Your task to perform on an android device: open app "Indeed Job Search" Image 0: 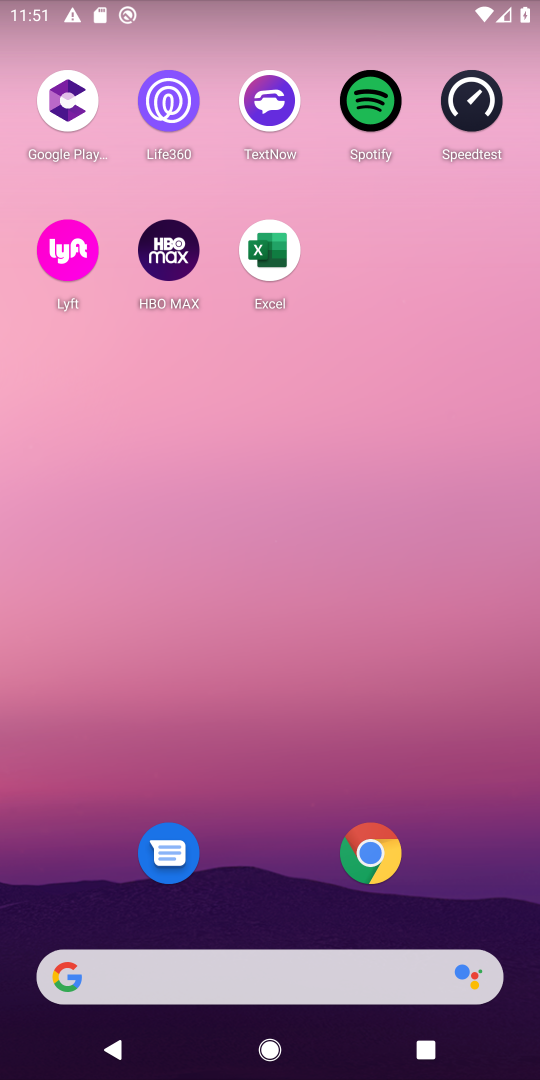
Step 0: drag from (290, 735) to (292, 493)
Your task to perform on an android device: open app "Indeed Job Search" Image 1: 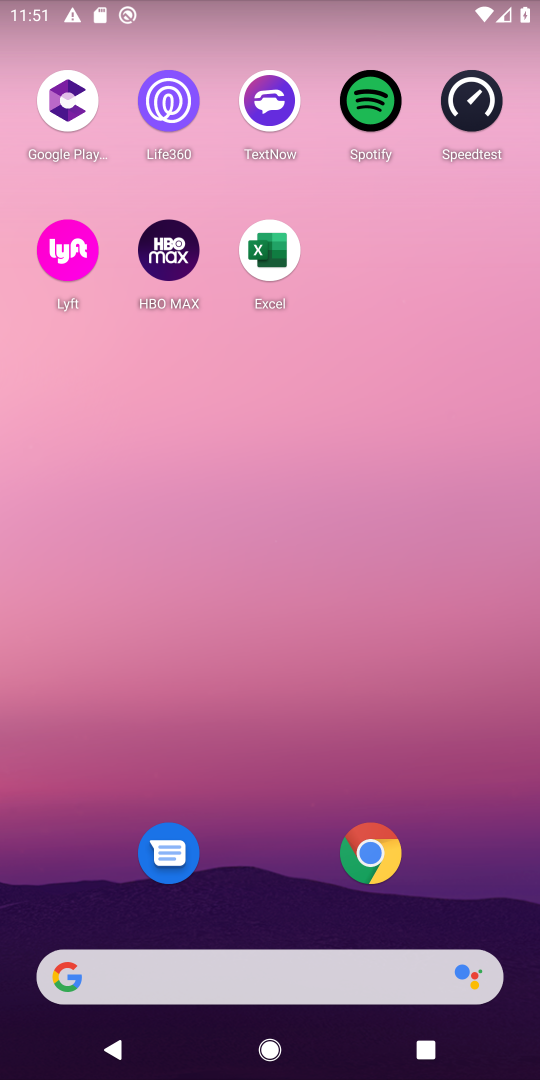
Step 1: drag from (311, 773) to (259, 320)
Your task to perform on an android device: open app "Indeed Job Search" Image 2: 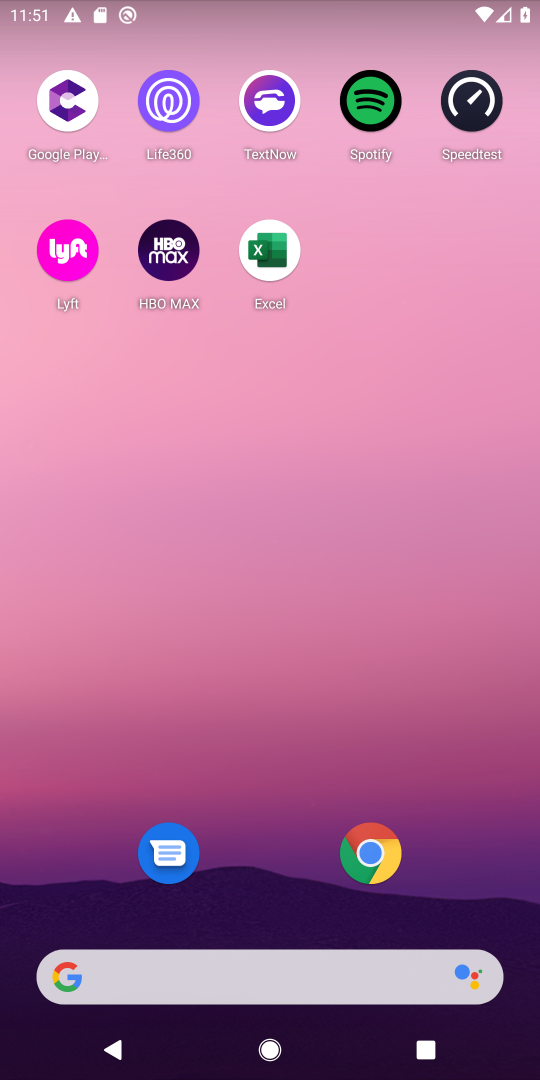
Step 2: drag from (211, 853) to (368, 23)
Your task to perform on an android device: open app "Indeed Job Search" Image 3: 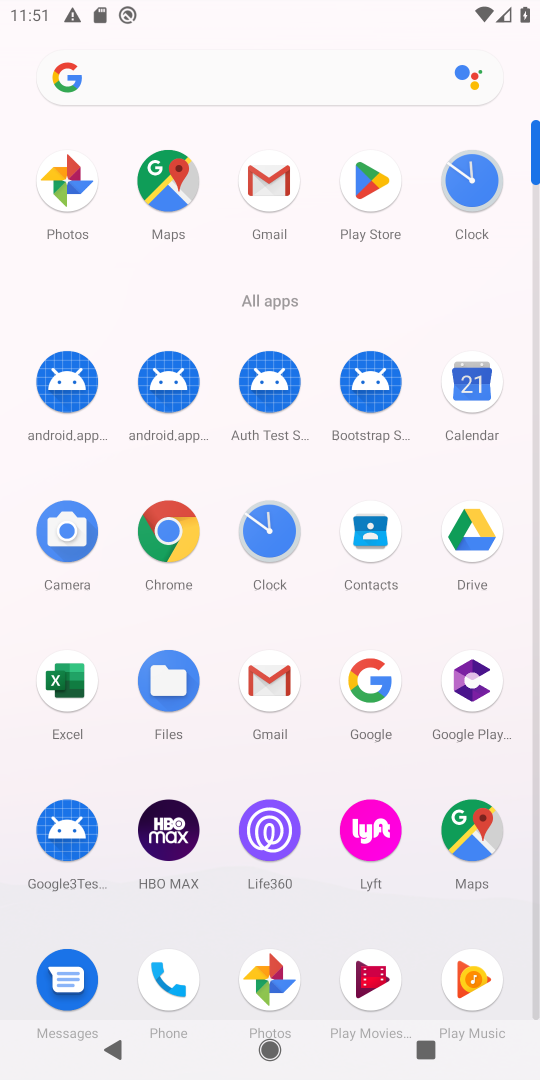
Step 3: click (369, 174)
Your task to perform on an android device: open app "Indeed Job Search" Image 4: 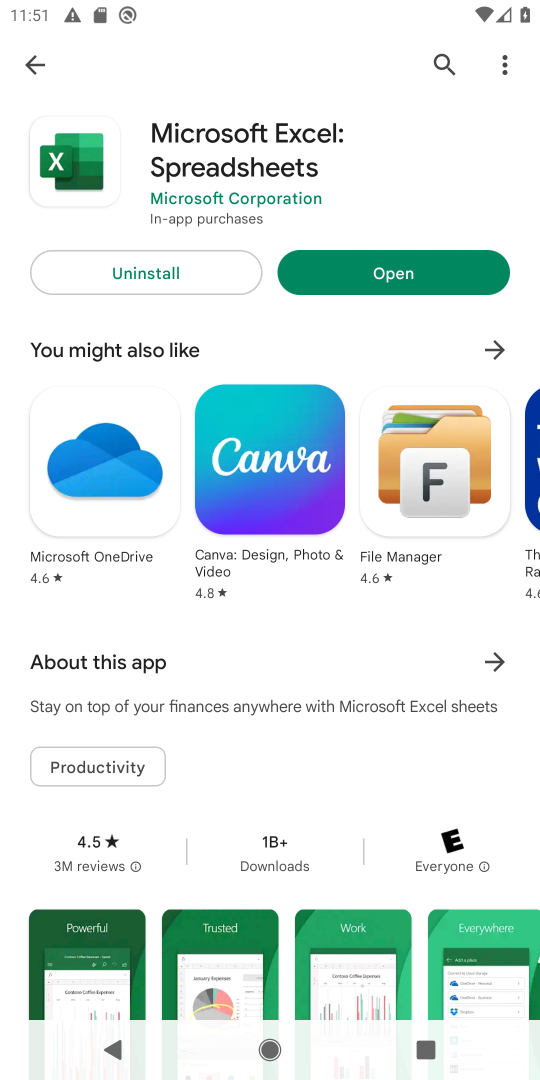
Step 4: click (49, 58)
Your task to perform on an android device: open app "Indeed Job Search" Image 5: 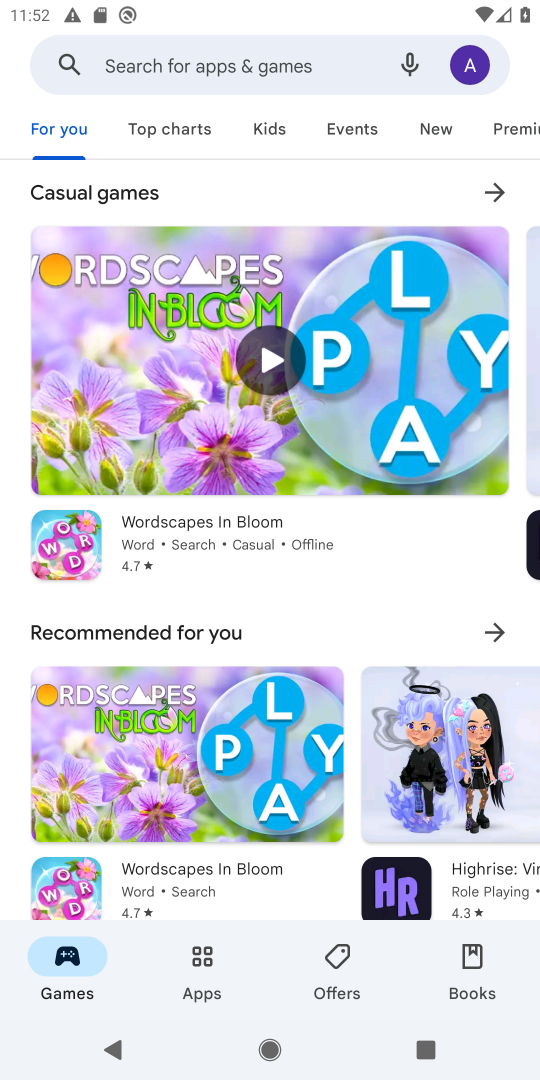
Step 5: click (145, 43)
Your task to perform on an android device: open app "Indeed Job Search" Image 6: 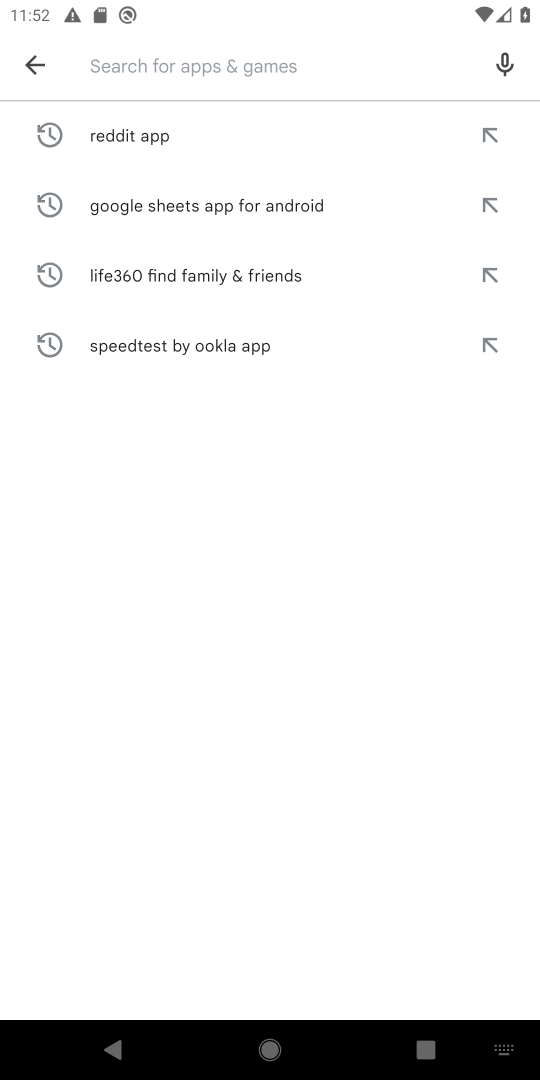
Step 6: type "Indeed Job Search "
Your task to perform on an android device: open app "Indeed Job Search" Image 7: 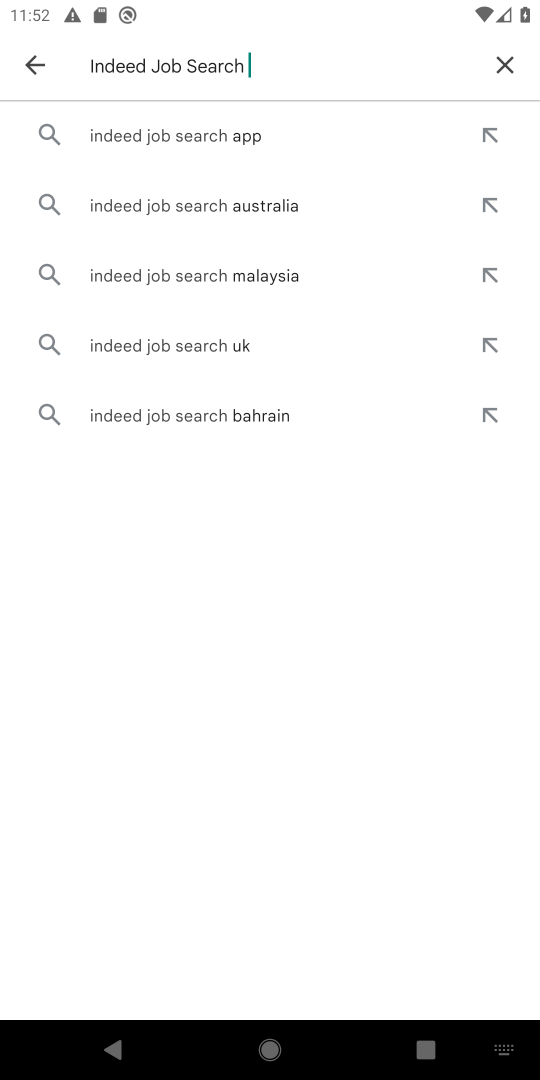
Step 7: click (145, 136)
Your task to perform on an android device: open app "Indeed Job Search" Image 8: 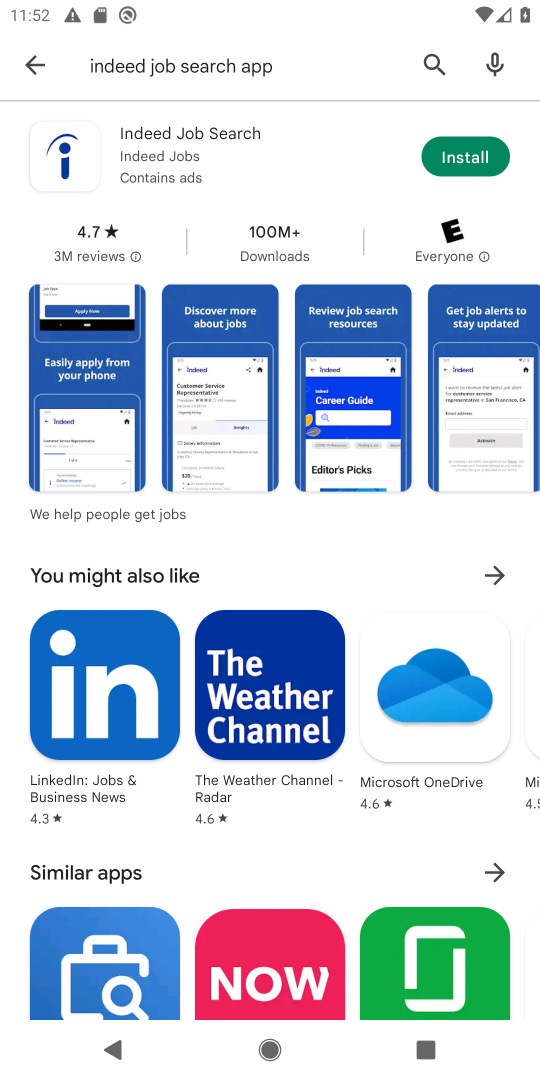
Step 8: click (482, 149)
Your task to perform on an android device: open app "Indeed Job Search" Image 9: 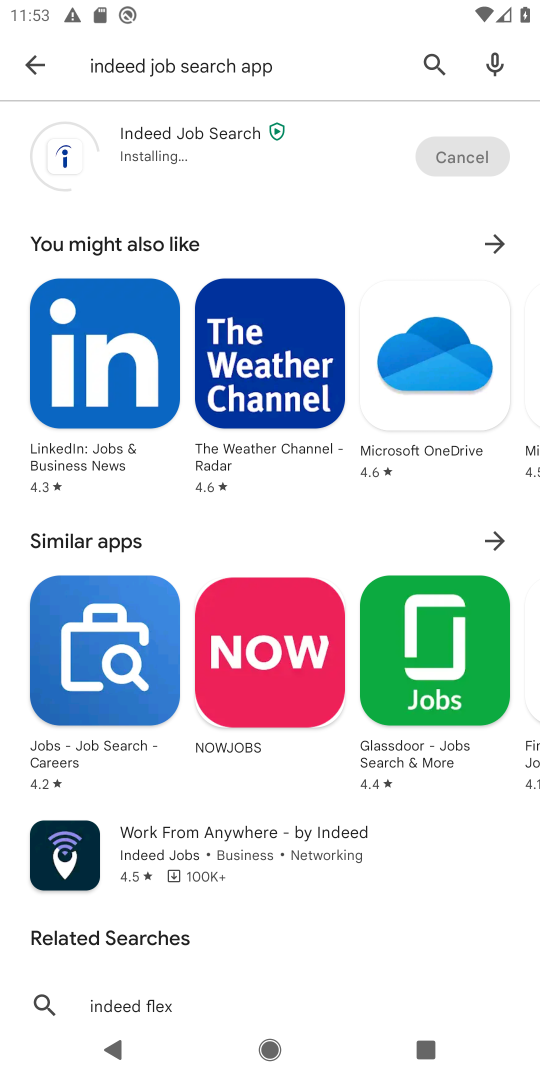
Step 9: task complete